Your task to perform on an android device: Search for seafood restaurants on Google Maps Image 0: 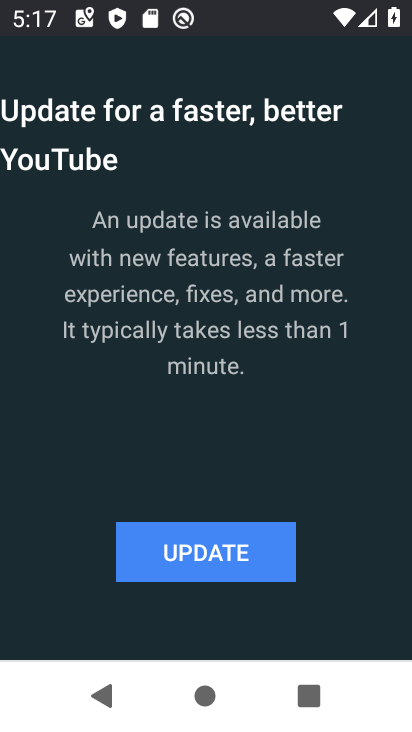
Step 0: press home button
Your task to perform on an android device: Search for seafood restaurants on Google Maps Image 1: 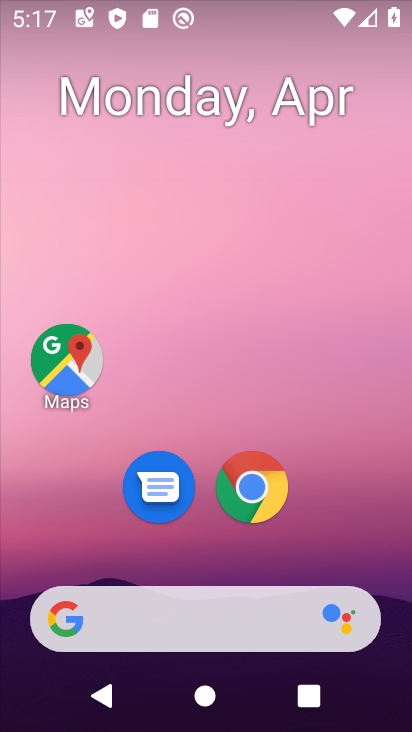
Step 1: click (83, 394)
Your task to perform on an android device: Search for seafood restaurants on Google Maps Image 2: 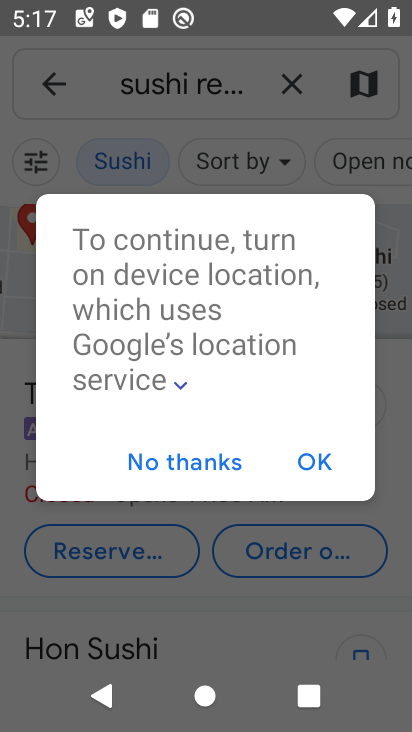
Step 2: click (204, 468)
Your task to perform on an android device: Search for seafood restaurants on Google Maps Image 3: 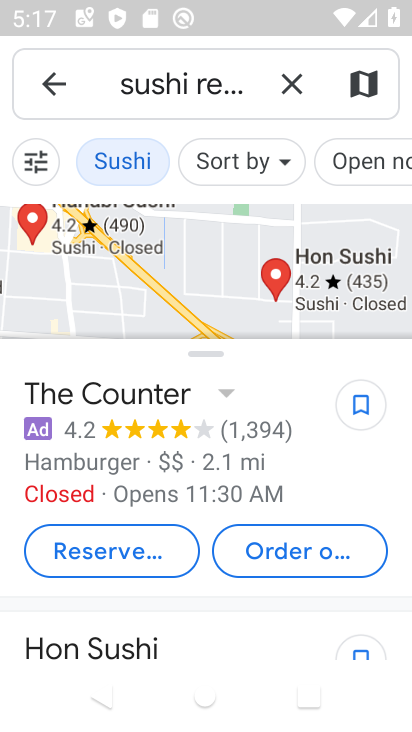
Step 3: click (289, 86)
Your task to perform on an android device: Search for seafood restaurants on Google Maps Image 4: 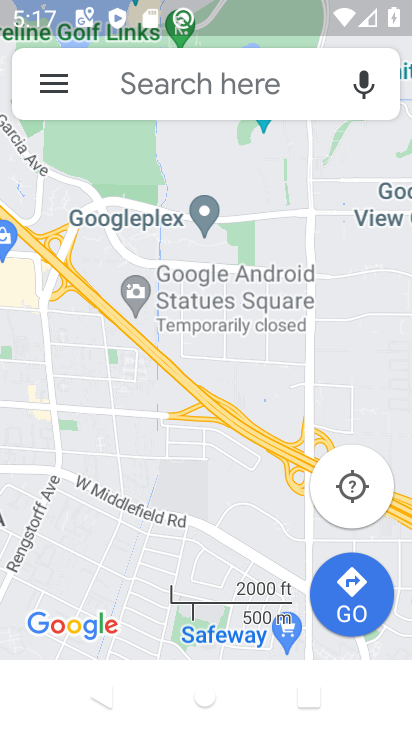
Step 4: click (224, 82)
Your task to perform on an android device: Search for seafood restaurants on Google Maps Image 5: 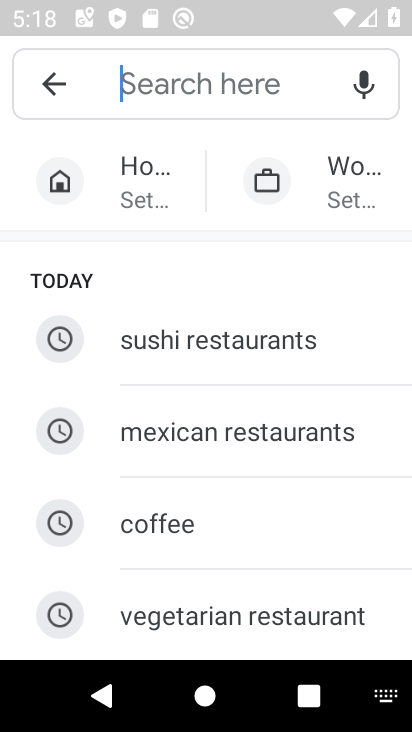
Step 5: type "seafood restaurants"
Your task to perform on an android device: Search for seafood restaurants on Google Maps Image 6: 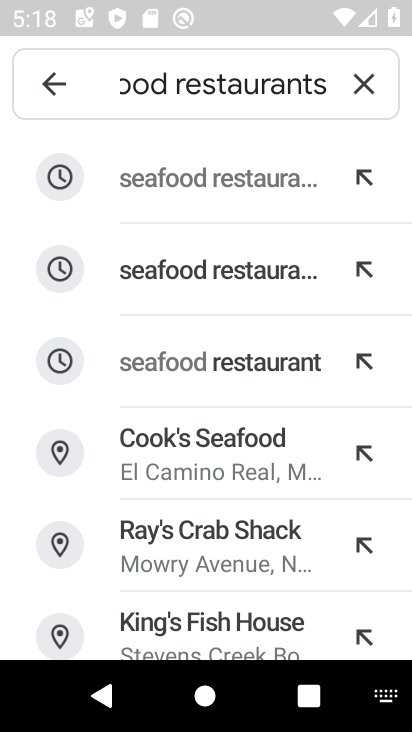
Step 6: click (209, 181)
Your task to perform on an android device: Search for seafood restaurants on Google Maps Image 7: 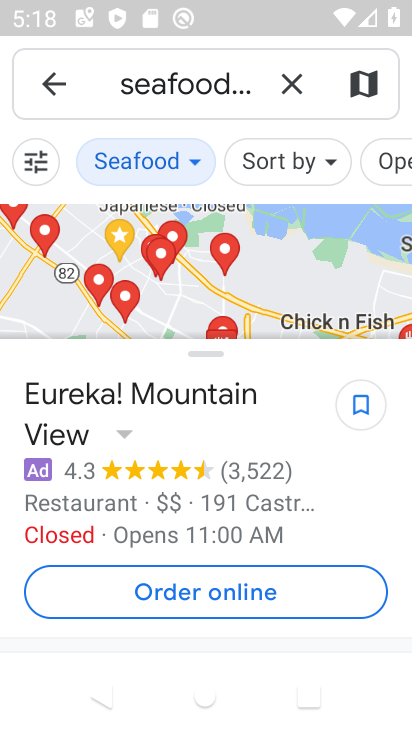
Step 7: task complete